Your task to perform on an android device: Search for vegetarian restaurants on Maps Image 0: 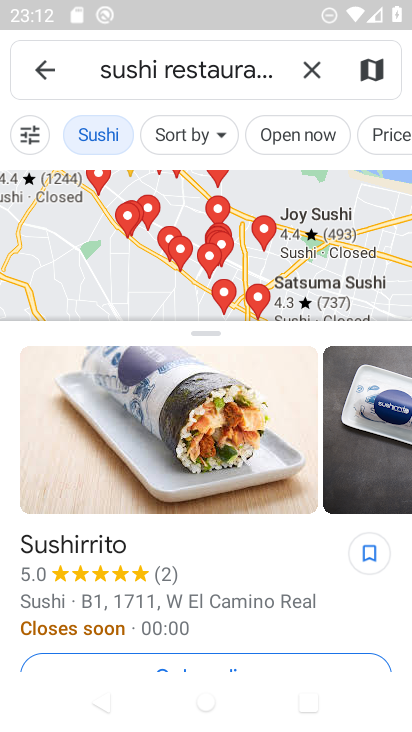
Step 0: press home button
Your task to perform on an android device: Search for vegetarian restaurants on Maps Image 1: 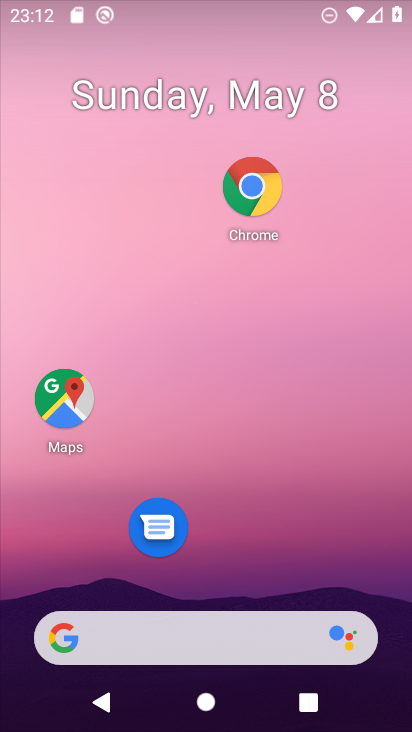
Step 1: drag from (286, 498) to (306, 311)
Your task to perform on an android device: Search for vegetarian restaurants on Maps Image 2: 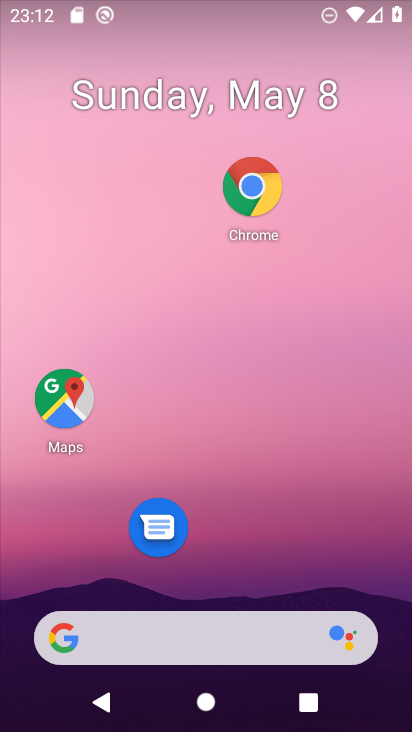
Step 2: drag from (305, 584) to (327, 385)
Your task to perform on an android device: Search for vegetarian restaurants on Maps Image 3: 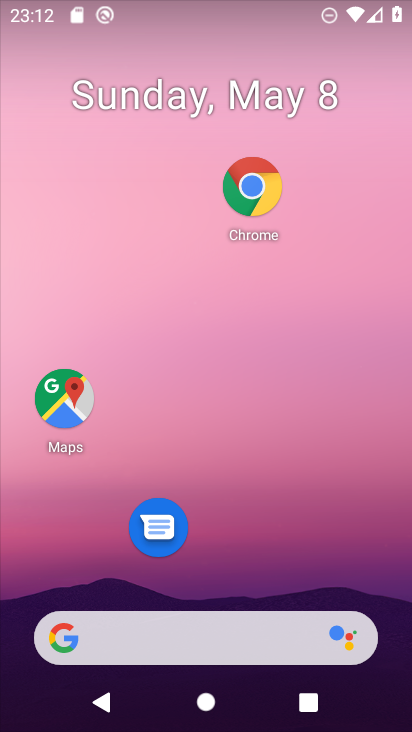
Step 3: drag from (301, 582) to (358, 275)
Your task to perform on an android device: Search for vegetarian restaurants on Maps Image 4: 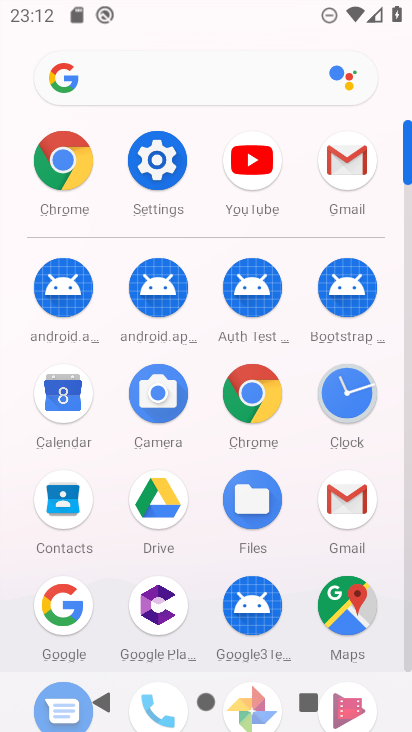
Step 4: click (351, 596)
Your task to perform on an android device: Search for vegetarian restaurants on Maps Image 5: 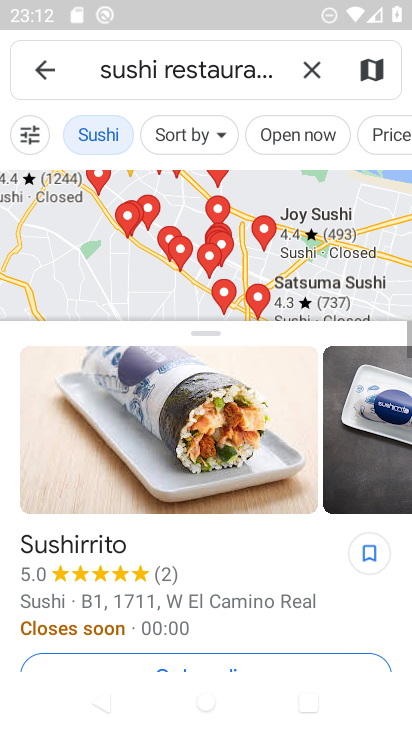
Step 5: click (313, 71)
Your task to perform on an android device: Search for vegetarian restaurants on Maps Image 6: 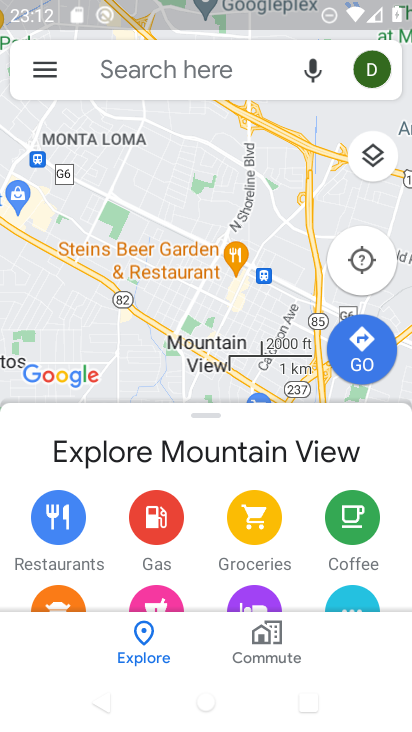
Step 6: click (186, 66)
Your task to perform on an android device: Search for vegetarian restaurants on Maps Image 7: 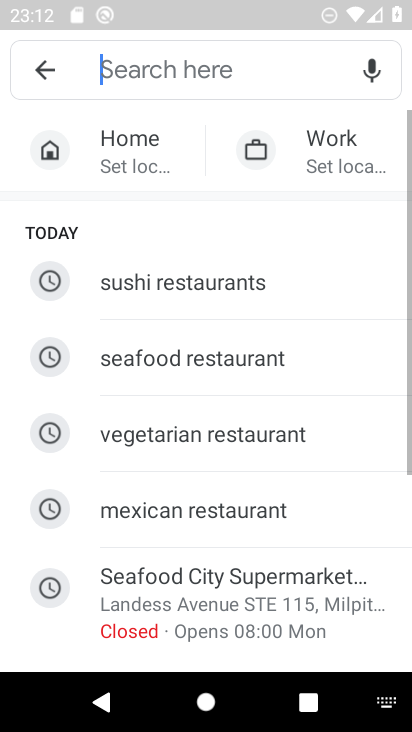
Step 7: click (175, 439)
Your task to perform on an android device: Search for vegetarian restaurants on Maps Image 8: 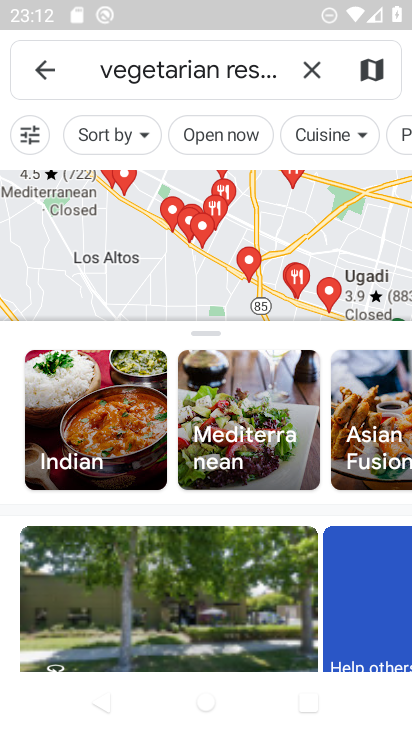
Step 8: task complete